Your task to perform on an android device: open the mobile data screen to see how much data has been used Image 0: 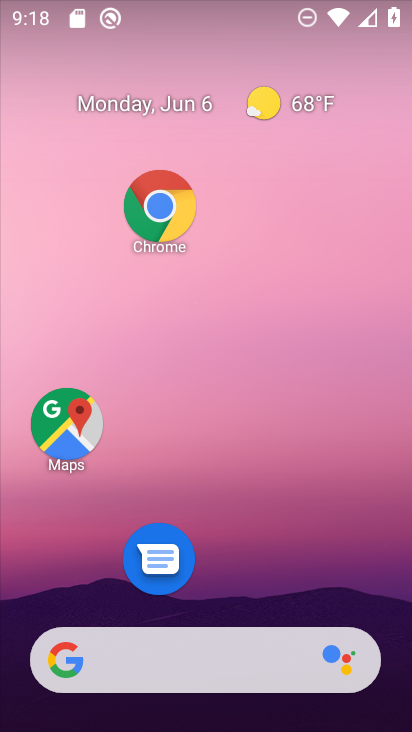
Step 0: click (242, 324)
Your task to perform on an android device: open the mobile data screen to see how much data has been used Image 1: 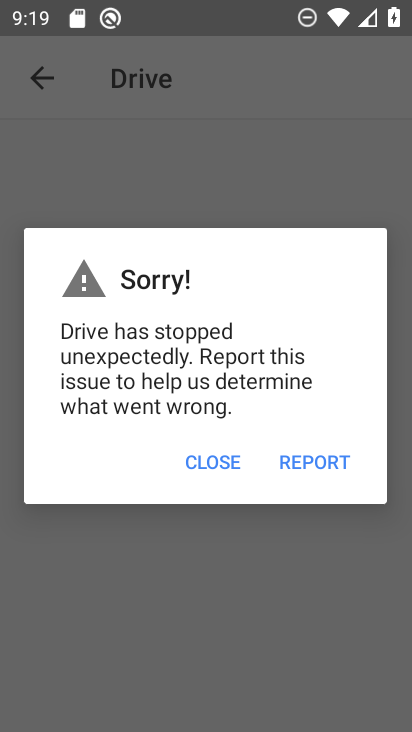
Step 1: press back button
Your task to perform on an android device: open the mobile data screen to see how much data has been used Image 2: 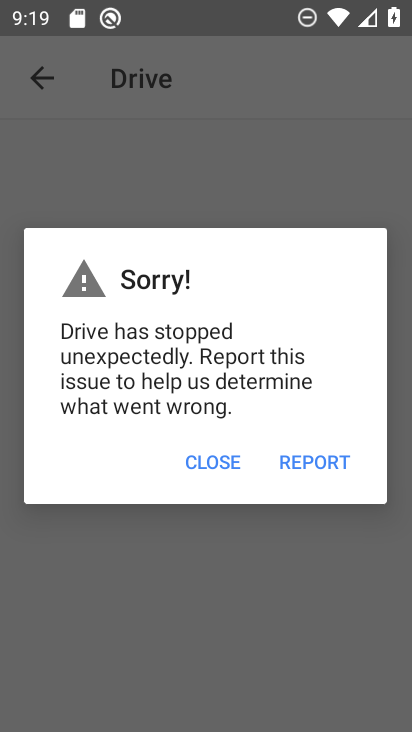
Step 2: click (215, 465)
Your task to perform on an android device: open the mobile data screen to see how much data has been used Image 3: 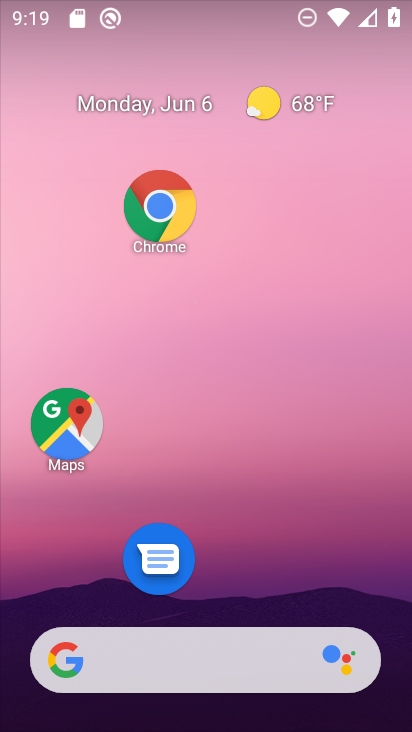
Step 3: drag from (190, 706) to (145, 386)
Your task to perform on an android device: open the mobile data screen to see how much data has been used Image 4: 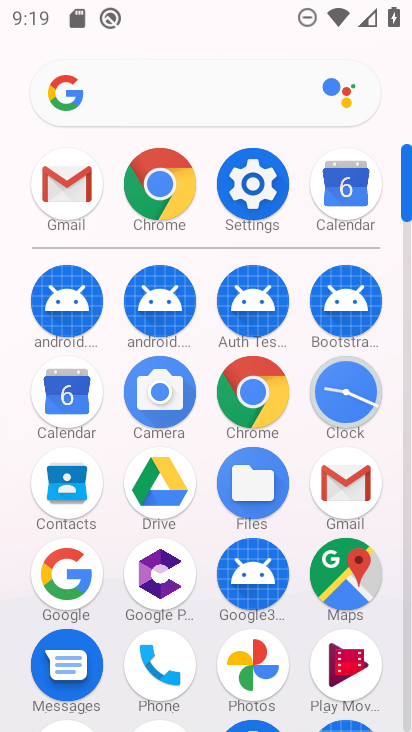
Step 4: click (250, 206)
Your task to perform on an android device: open the mobile data screen to see how much data has been used Image 5: 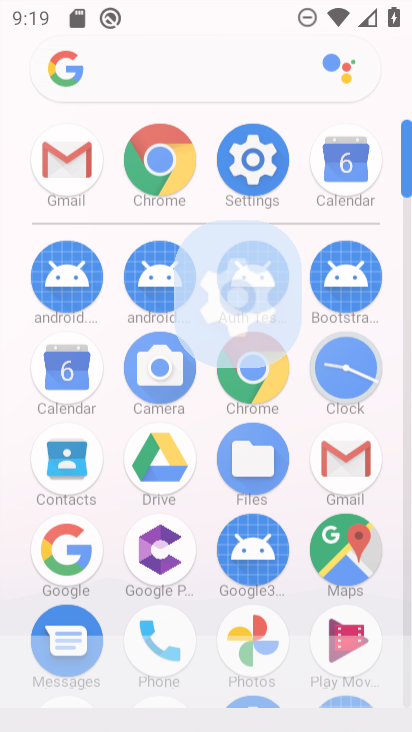
Step 5: click (249, 205)
Your task to perform on an android device: open the mobile data screen to see how much data has been used Image 6: 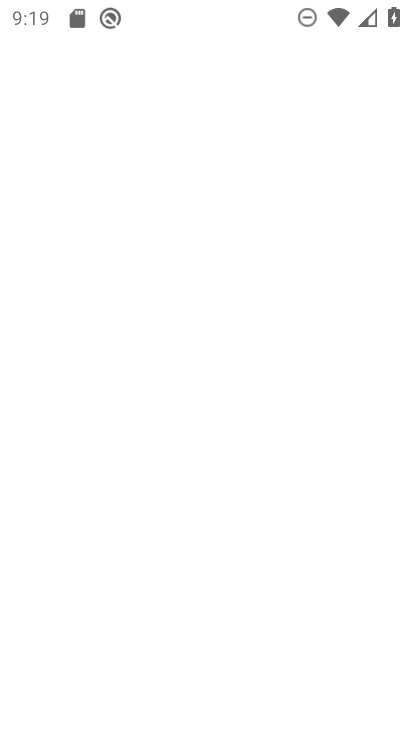
Step 6: click (249, 205)
Your task to perform on an android device: open the mobile data screen to see how much data has been used Image 7: 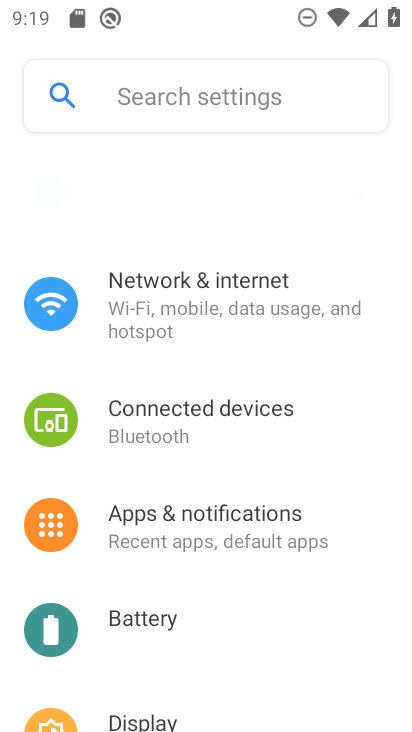
Step 7: click (249, 205)
Your task to perform on an android device: open the mobile data screen to see how much data has been used Image 8: 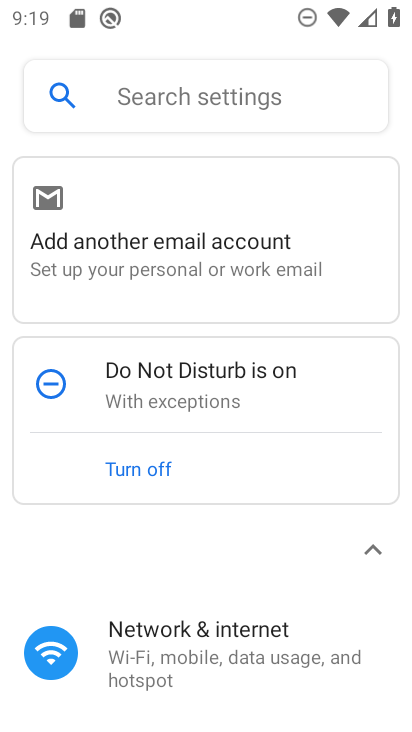
Step 8: click (174, 640)
Your task to perform on an android device: open the mobile data screen to see how much data has been used Image 9: 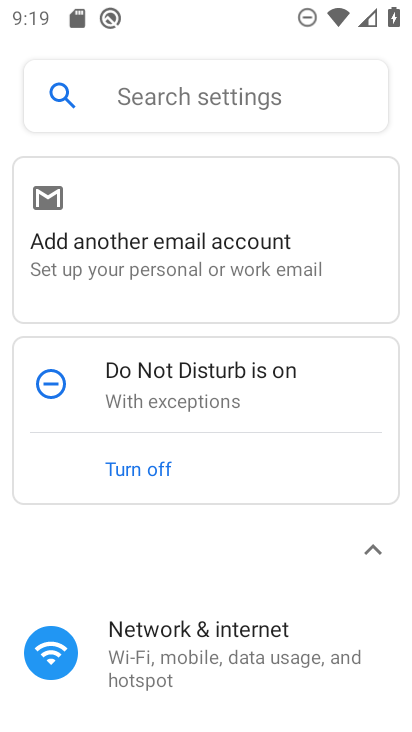
Step 9: click (222, 657)
Your task to perform on an android device: open the mobile data screen to see how much data has been used Image 10: 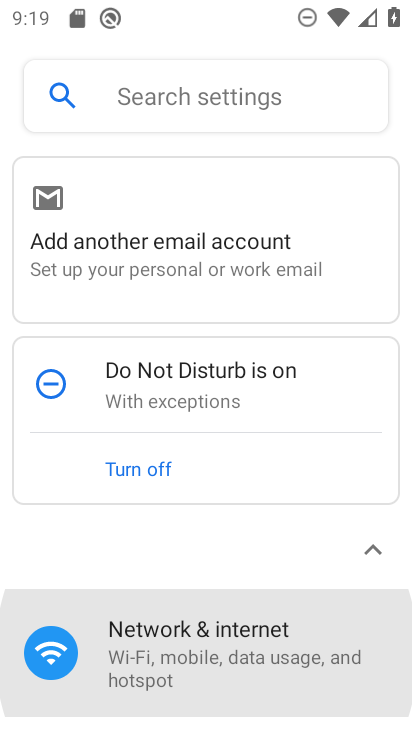
Step 10: click (221, 655)
Your task to perform on an android device: open the mobile data screen to see how much data has been used Image 11: 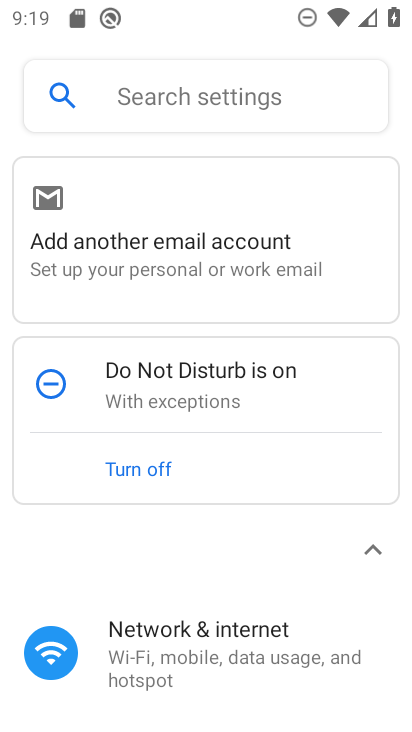
Step 11: click (221, 655)
Your task to perform on an android device: open the mobile data screen to see how much data has been used Image 12: 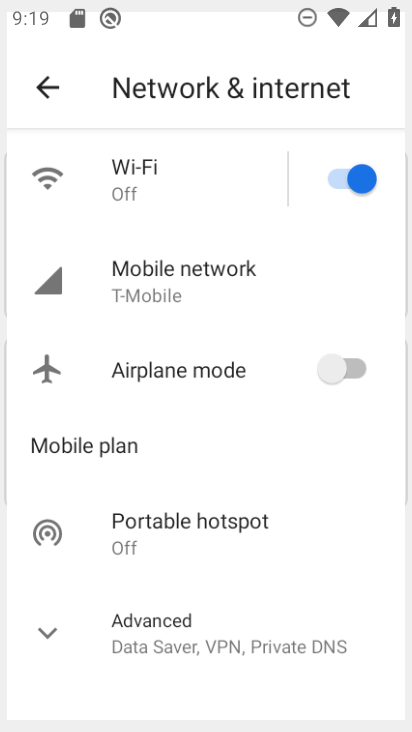
Step 12: click (221, 655)
Your task to perform on an android device: open the mobile data screen to see how much data has been used Image 13: 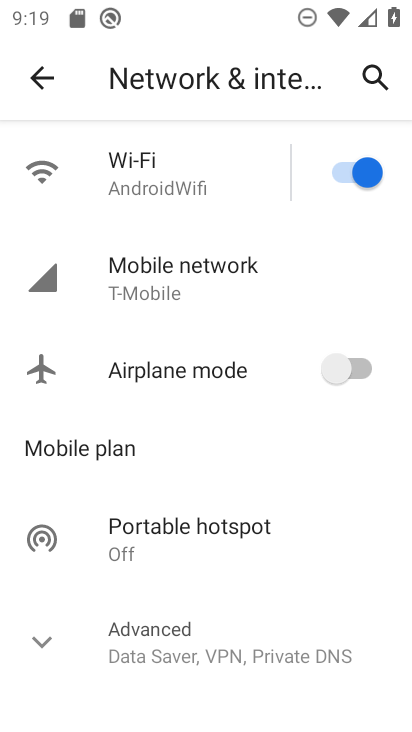
Step 13: click (221, 655)
Your task to perform on an android device: open the mobile data screen to see how much data has been used Image 14: 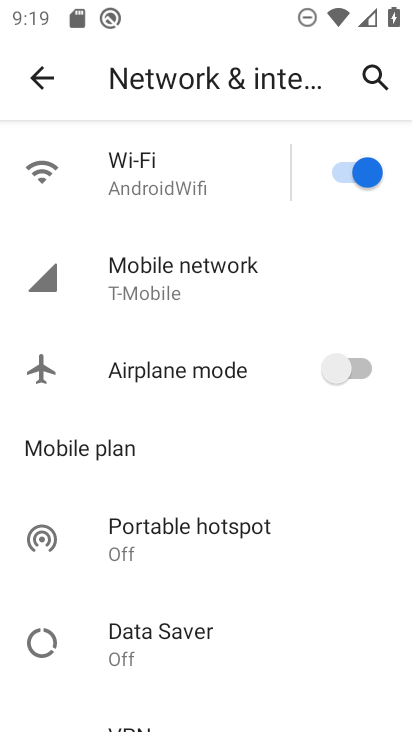
Step 14: task complete